Your task to perform on an android device: What's the weather going to be this weekend? Image 0: 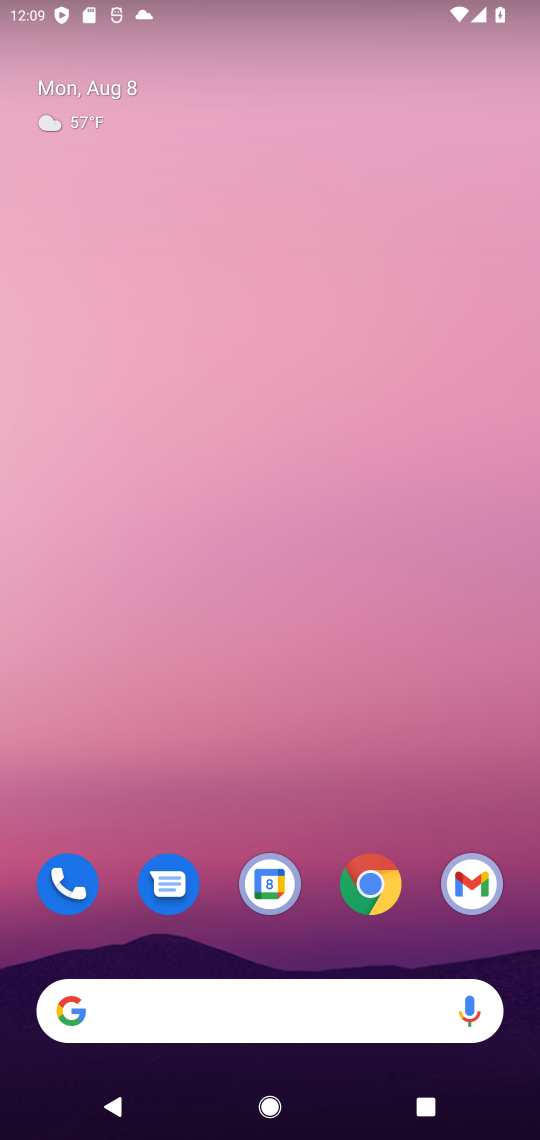
Step 0: drag from (164, 1139) to (109, 1139)
Your task to perform on an android device: What's the weather going to be this weekend? Image 1: 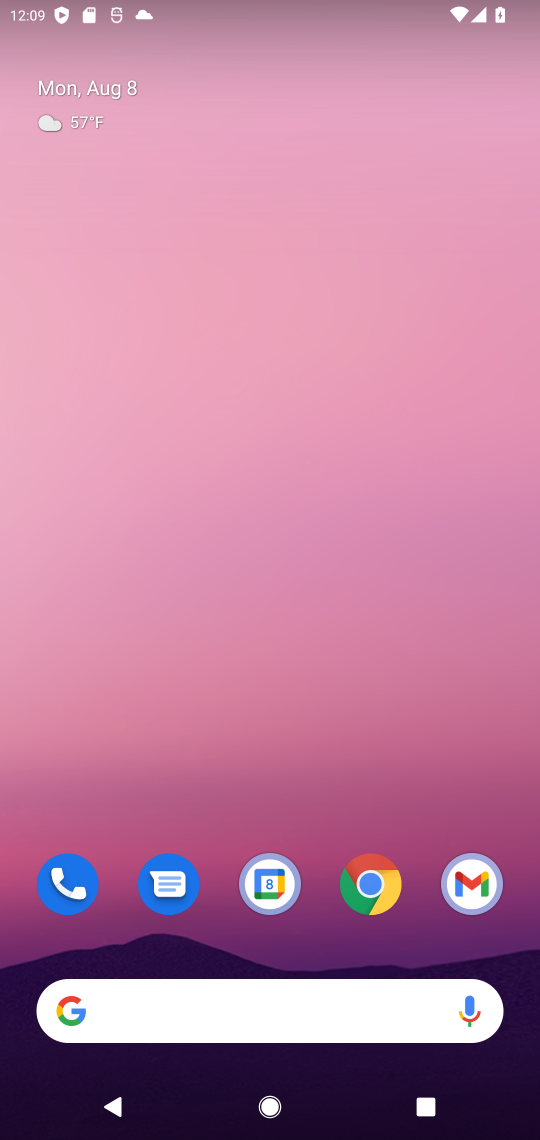
Step 1: click (239, 1011)
Your task to perform on an android device: What's the weather going to be this weekend? Image 2: 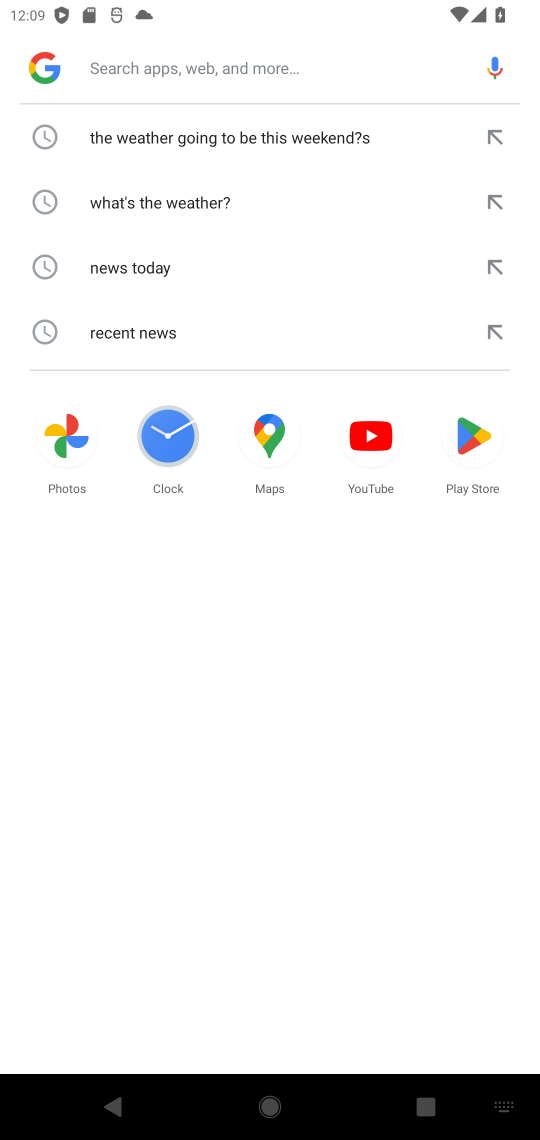
Step 2: press enter
Your task to perform on an android device: What's the weather going to be this weekend? Image 3: 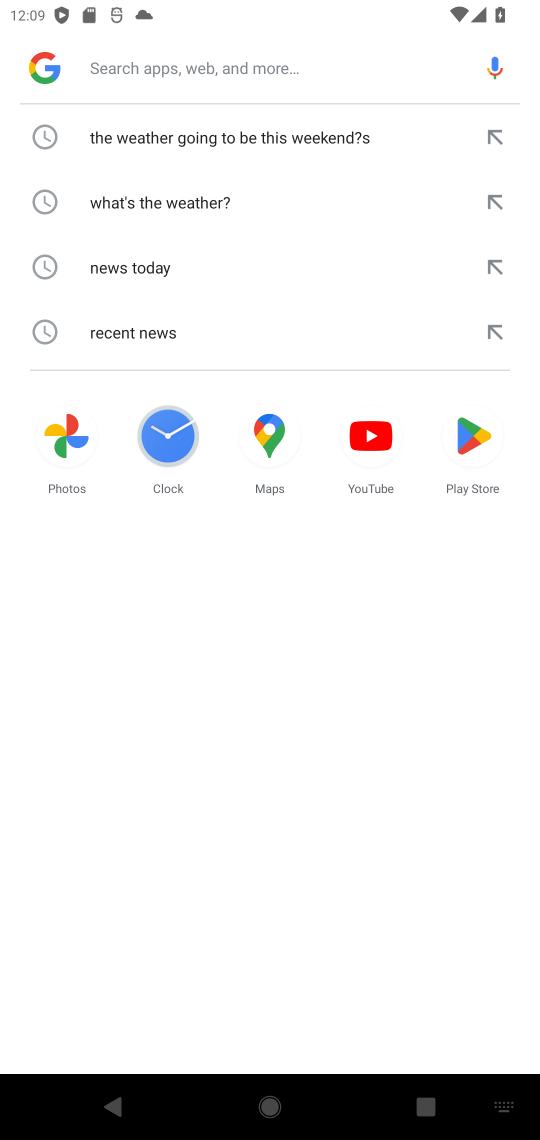
Step 3: type "What's the weather going to be this weekend?"
Your task to perform on an android device: What's the weather going to be this weekend? Image 4: 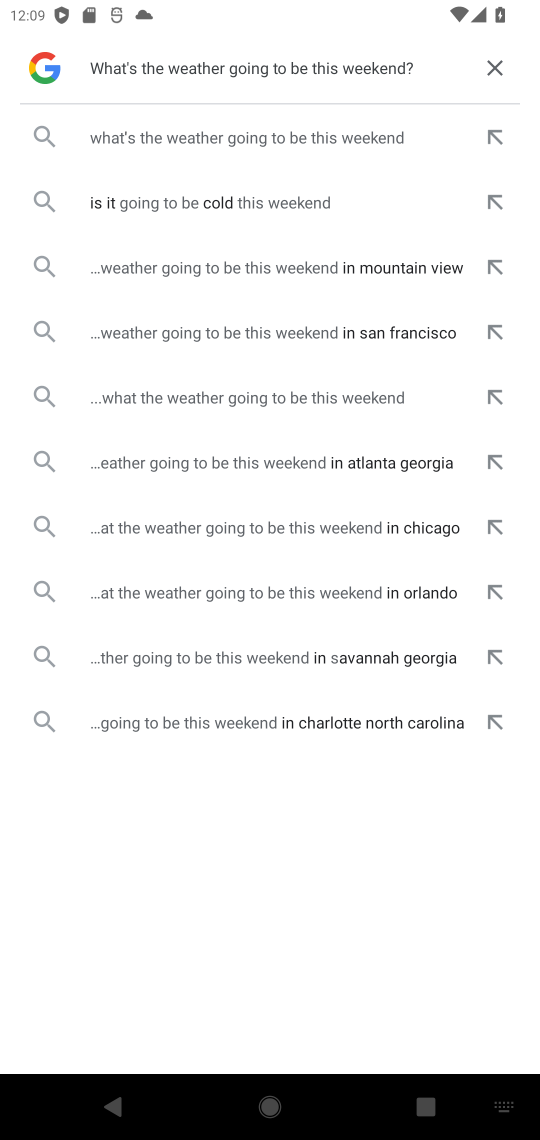
Step 4: press enter
Your task to perform on an android device: What's the weather going to be this weekend? Image 5: 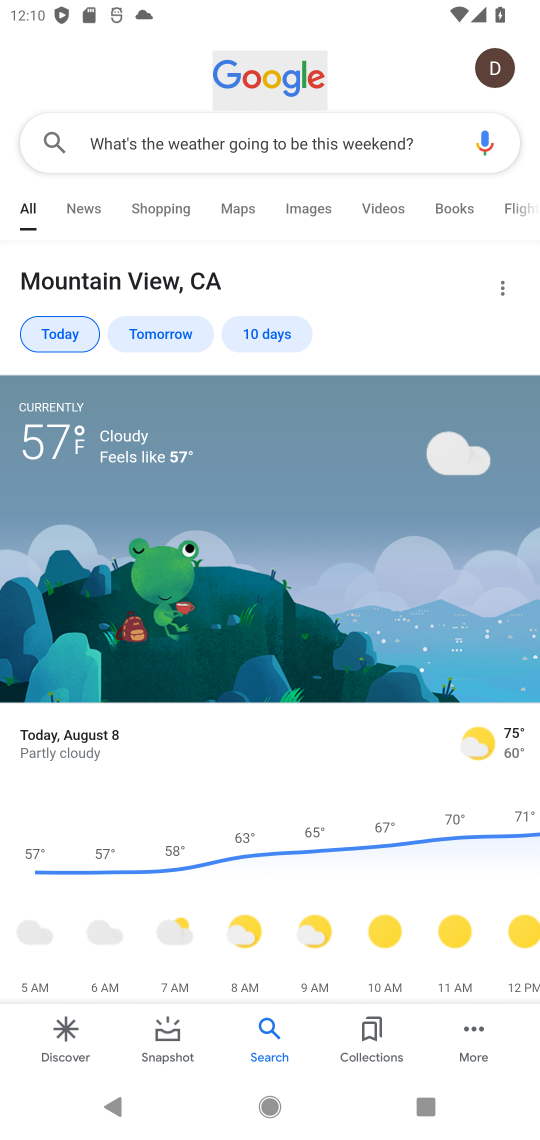
Step 5: task complete